Your task to perform on an android device: choose inbox layout in the gmail app Image 0: 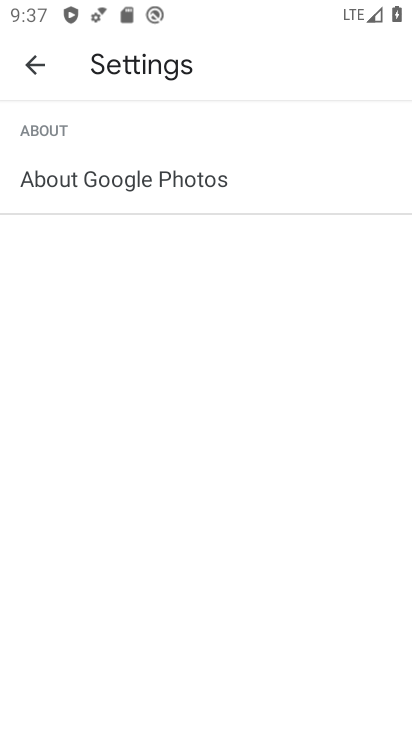
Step 0: press home button
Your task to perform on an android device: choose inbox layout in the gmail app Image 1: 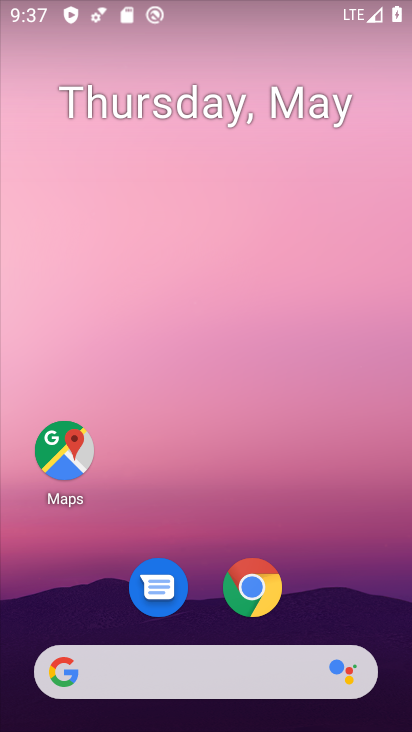
Step 1: drag from (341, 606) to (354, 24)
Your task to perform on an android device: choose inbox layout in the gmail app Image 2: 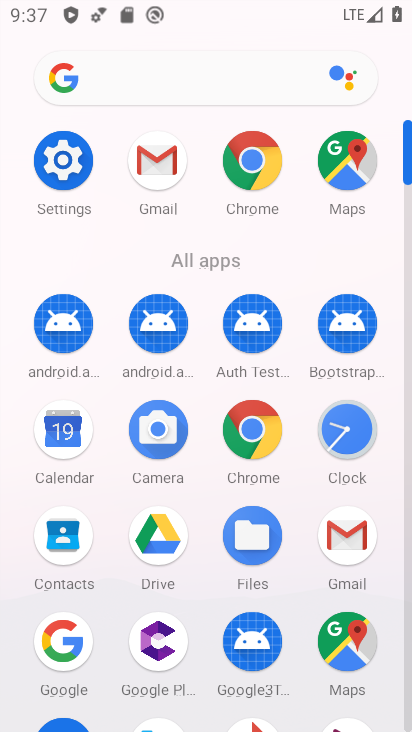
Step 2: click (148, 173)
Your task to perform on an android device: choose inbox layout in the gmail app Image 3: 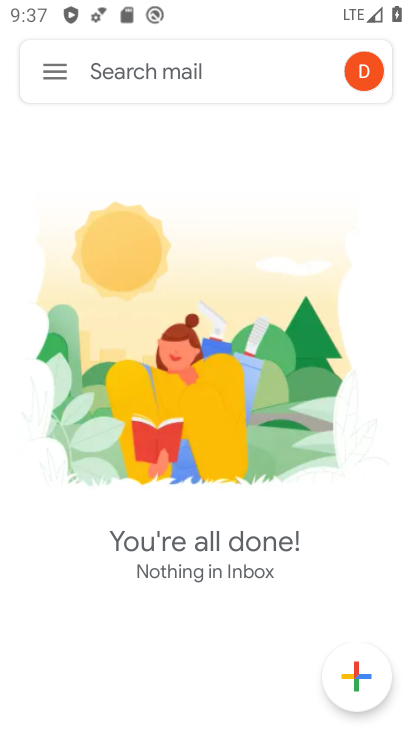
Step 3: click (53, 74)
Your task to perform on an android device: choose inbox layout in the gmail app Image 4: 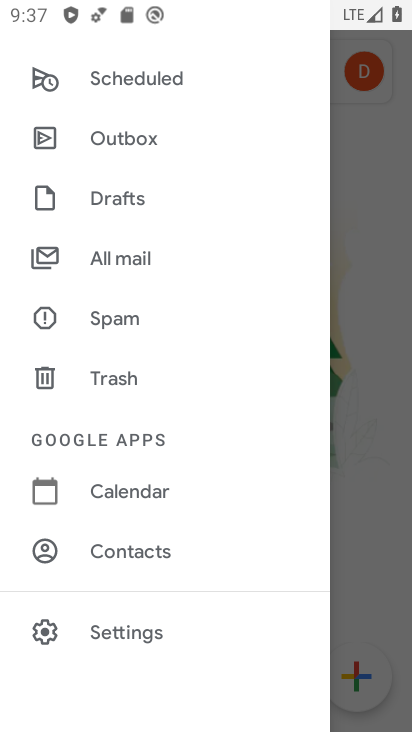
Step 4: drag from (219, 601) to (226, 247)
Your task to perform on an android device: choose inbox layout in the gmail app Image 5: 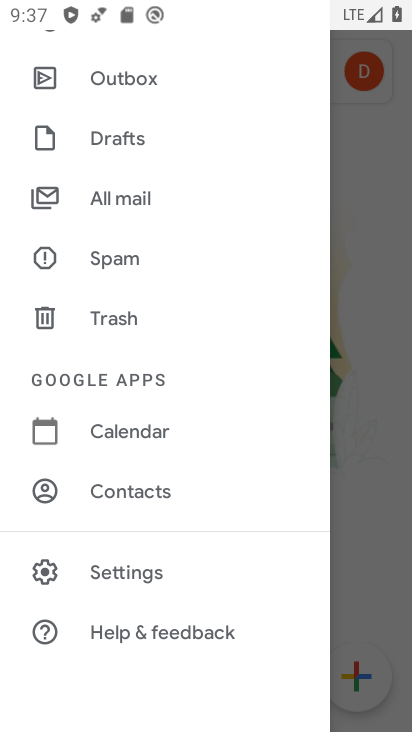
Step 5: click (103, 577)
Your task to perform on an android device: choose inbox layout in the gmail app Image 6: 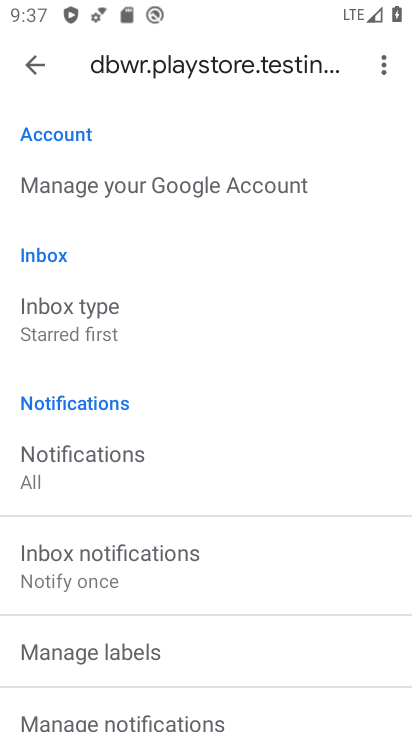
Step 6: click (52, 325)
Your task to perform on an android device: choose inbox layout in the gmail app Image 7: 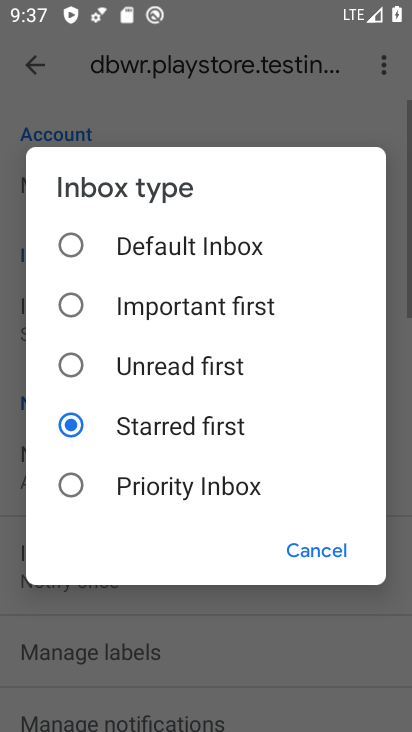
Step 7: click (59, 309)
Your task to perform on an android device: choose inbox layout in the gmail app Image 8: 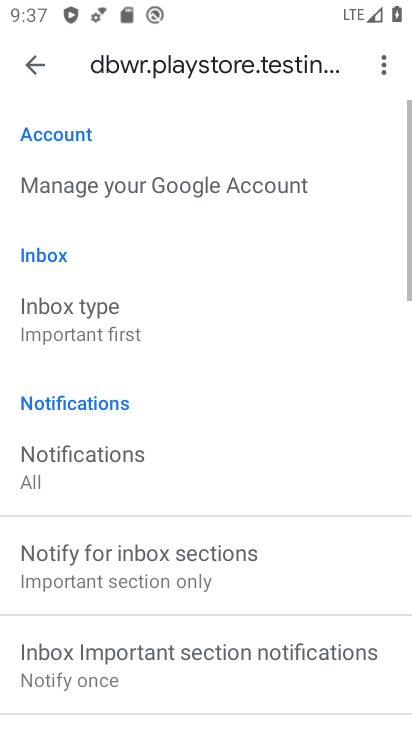
Step 8: task complete